Your task to perform on an android device: turn off data saver in the chrome app Image 0: 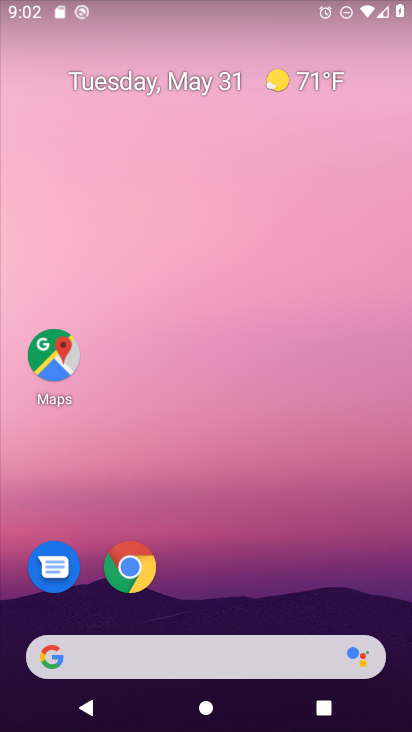
Step 0: click (126, 566)
Your task to perform on an android device: turn off data saver in the chrome app Image 1: 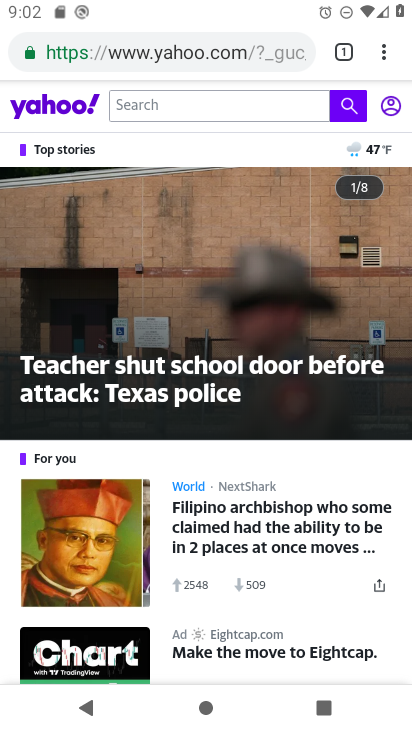
Step 1: click (388, 56)
Your task to perform on an android device: turn off data saver in the chrome app Image 2: 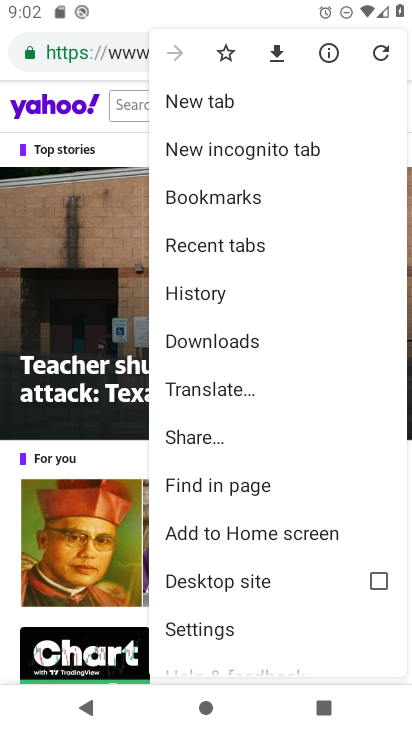
Step 2: click (200, 632)
Your task to perform on an android device: turn off data saver in the chrome app Image 3: 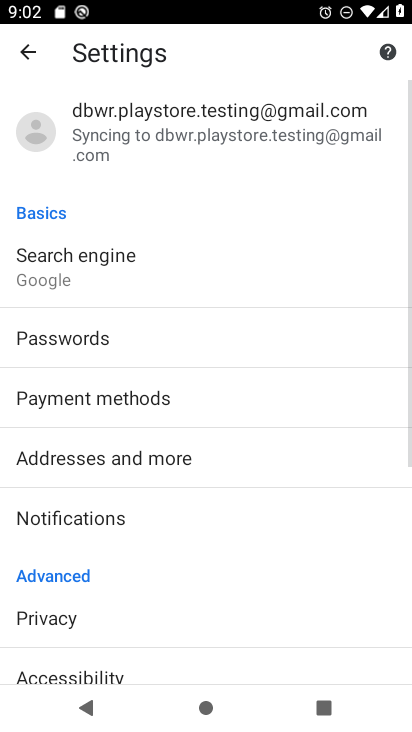
Step 3: drag from (117, 653) to (117, 256)
Your task to perform on an android device: turn off data saver in the chrome app Image 4: 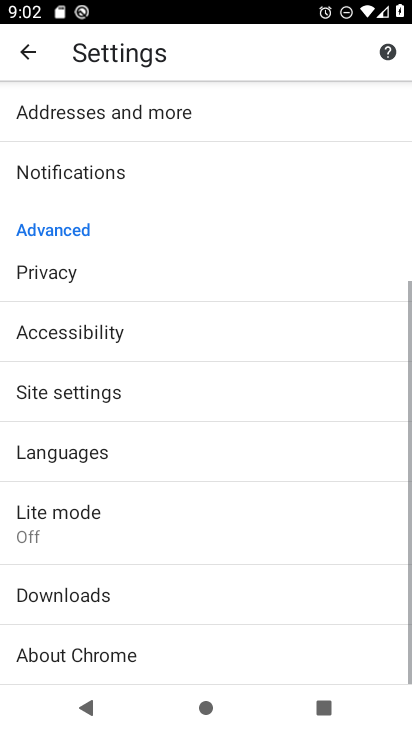
Step 4: click (49, 517)
Your task to perform on an android device: turn off data saver in the chrome app Image 5: 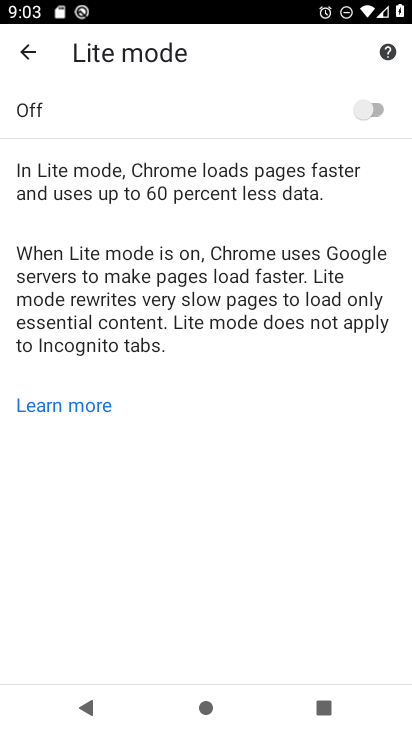
Step 5: task complete